Your task to perform on an android device: Open eBay Image 0: 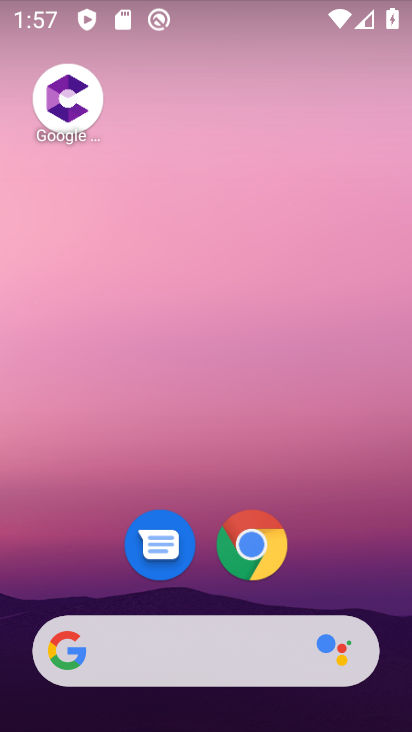
Step 0: click (271, 560)
Your task to perform on an android device: Open eBay Image 1: 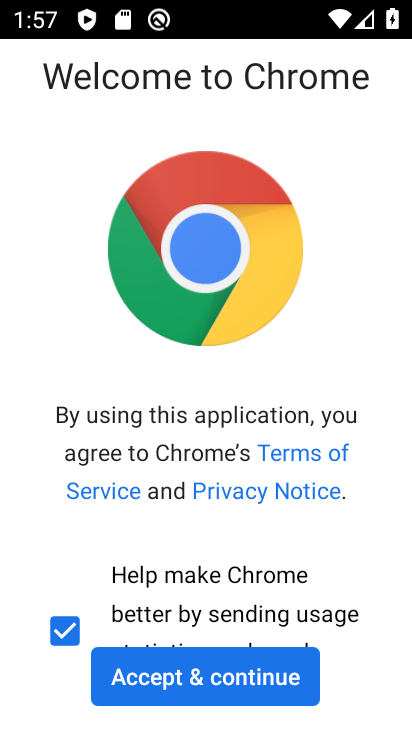
Step 1: click (224, 696)
Your task to perform on an android device: Open eBay Image 2: 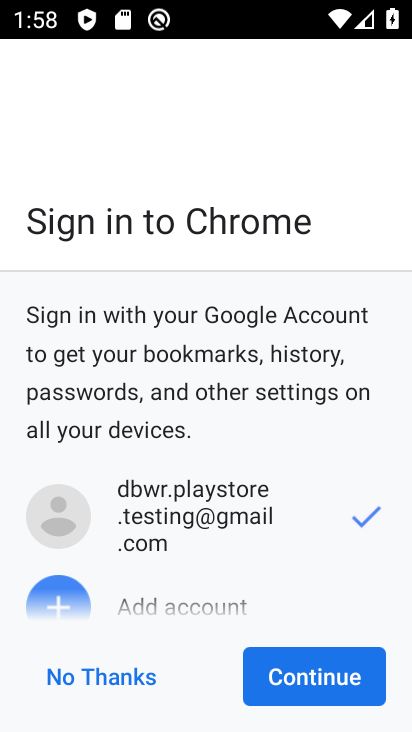
Step 2: click (329, 668)
Your task to perform on an android device: Open eBay Image 3: 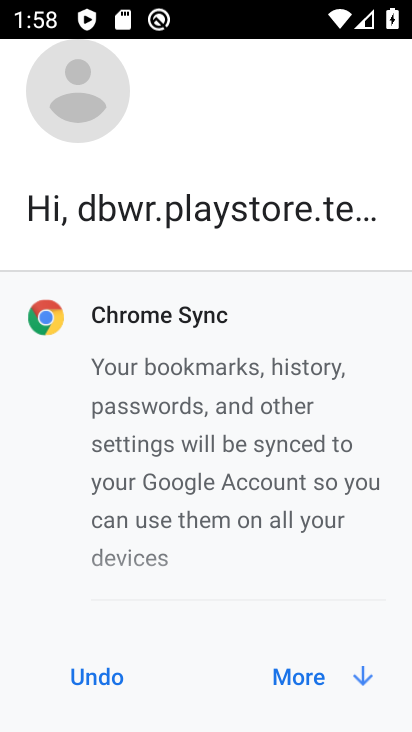
Step 3: click (312, 678)
Your task to perform on an android device: Open eBay Image 4: 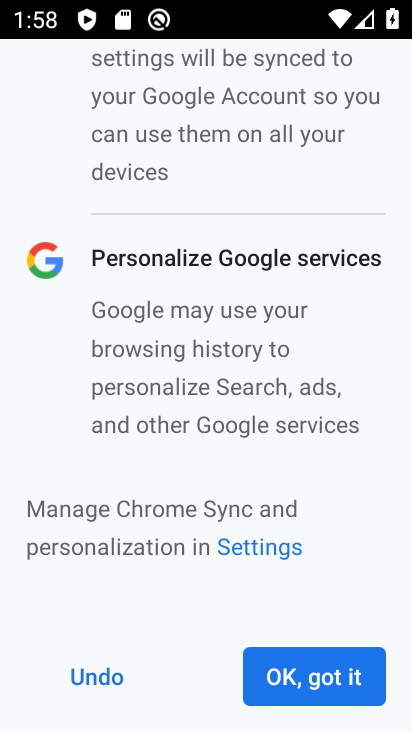
Step 4: click (317, 675)
Your task to perform on an android device: Open eBay Image 5: 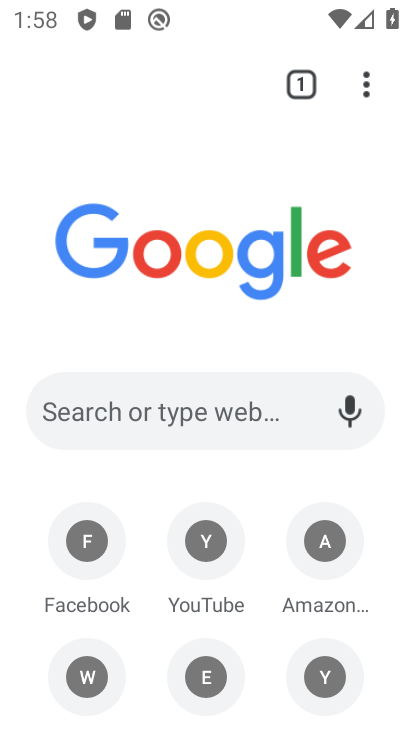
Step 5: drag from (199, 661) to (265, 401)
Your task to perform on an android device: Open eBay Image 6: 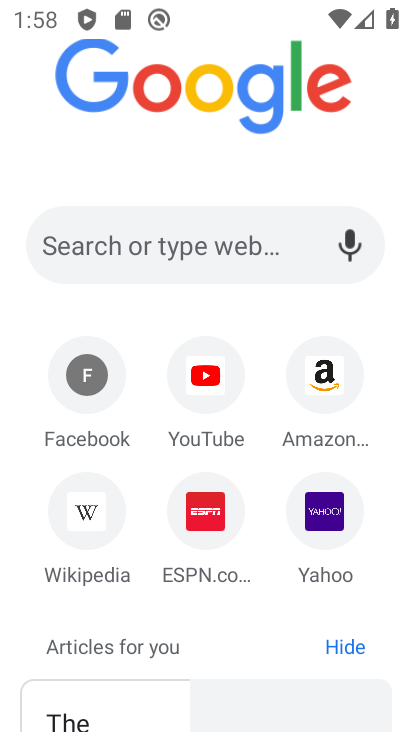
Step 6: click (219, 242)
Your task to perform on an android device: Open eBay Image 7: 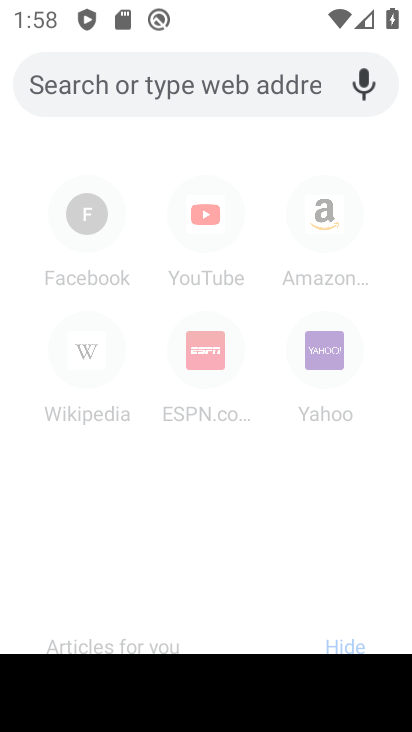
Step 7: type "eBay"
Your task to perform on an android device: Open eBay Image 8: 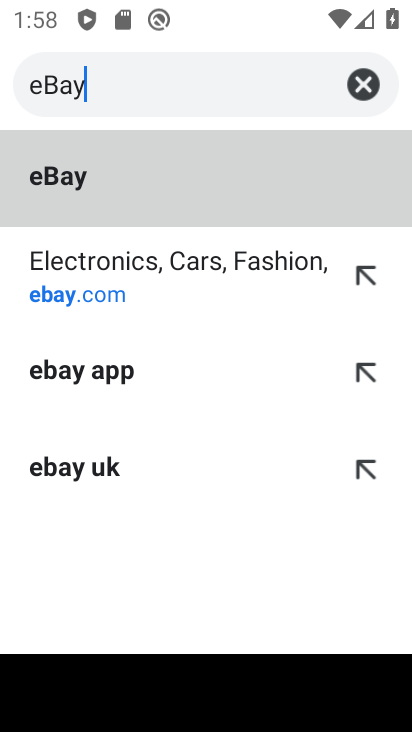
Step 8: click (134, 281)
Your task to perform on an android device: Open eBay Image 9: 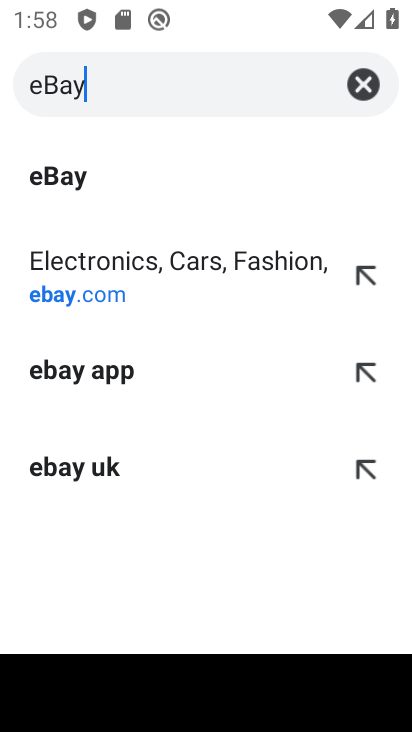
Step 9: click (229, 293)
Your task to perform on an android device: Open eBay Image 10: 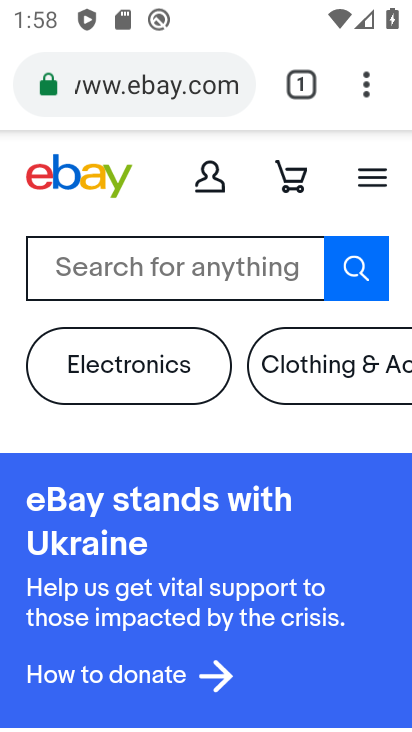
Step 10: task complete